Your task to perform on an android device: Clear the cart on ebay.com. Search for "razer deathadder" on ebay.com, select the first entry, add it to the cart, then select checkout. Image 0: 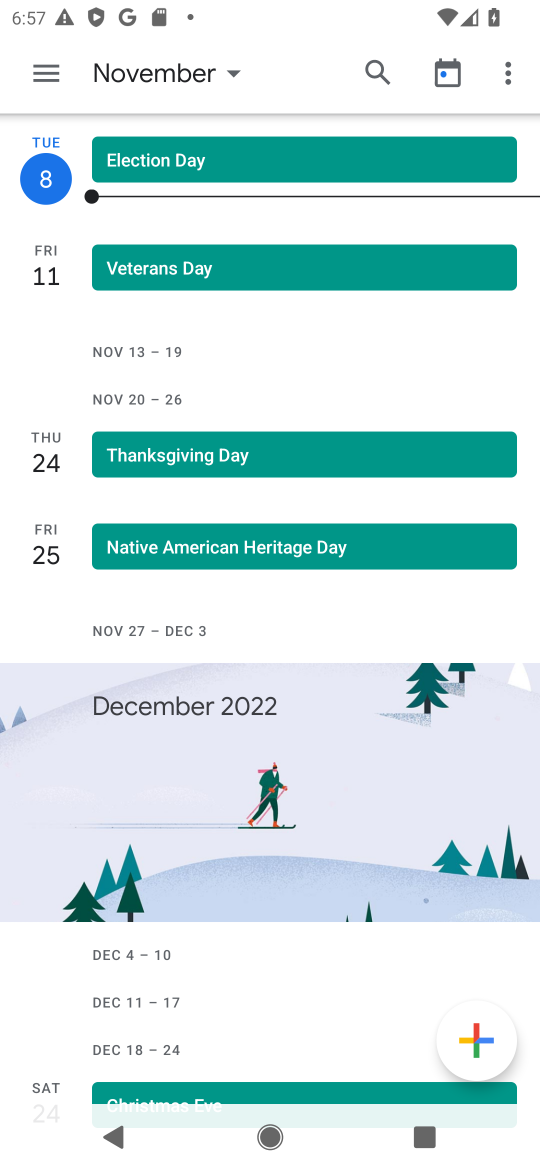
Step 0: press home button
Your task to perform on an android device: Clear the cart on ebay.com. Search for "razer deathadder" on ebay.com, select the first entry, add it to the cart, then select checkout. Image 1: 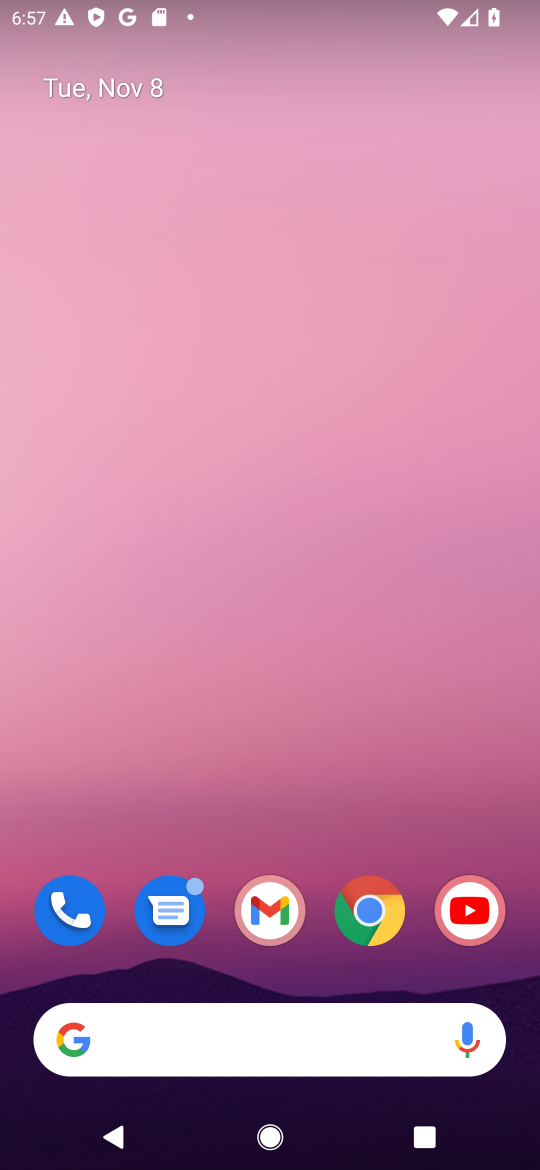
Step 1: click (365, 901)
Your task to perform on an android device: Clear the cart on ebay.com. Search for "razer deathadder" on ebay.com, select the first entry, add it to the cart, then select checkout. Image 2: 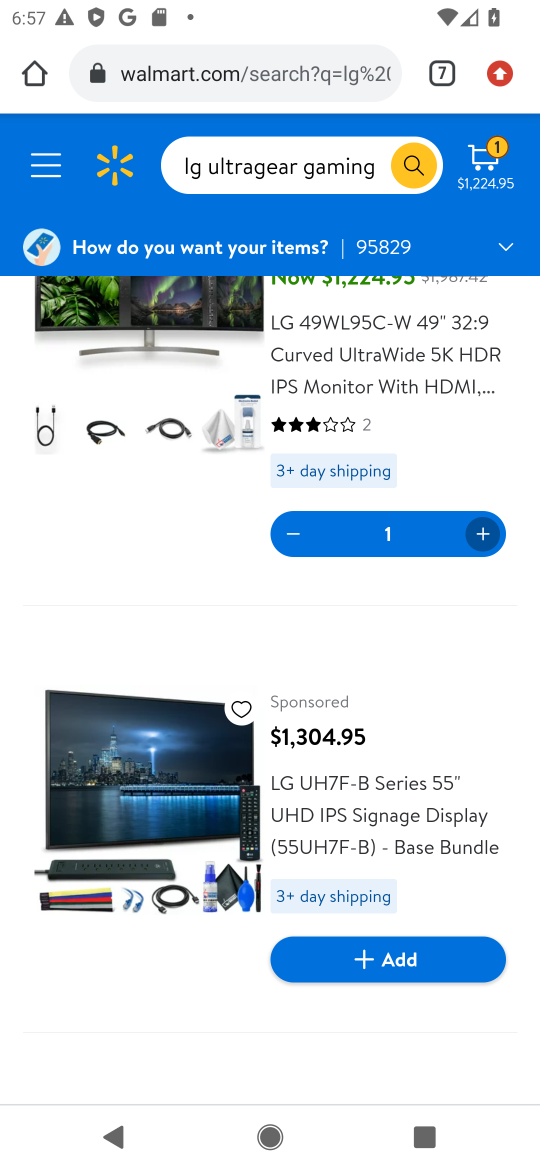
Step 2: click (441, 67)
Your task to perform on an android device: Clear the cart on ebay.com. Search for "razer deathadder" on ebay.com, select the first entry, add it to the cart, then select checkout. Image 3: 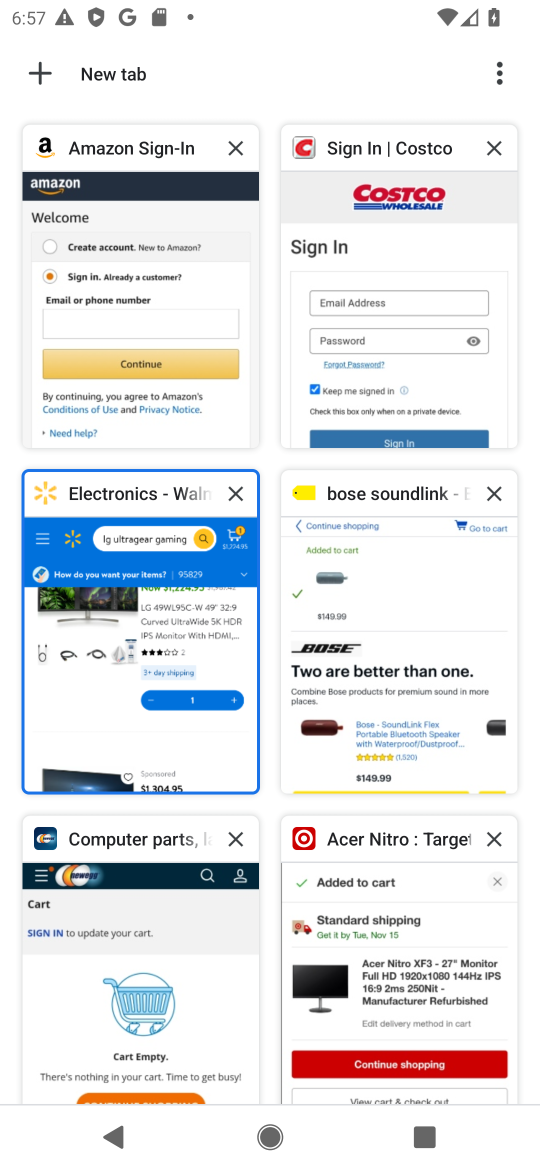
Step 3: drag from (236, 957) to (268, 456)
Your task to perform on an android device: Clear the cart on ebay.com. Search for "razer deathadder" on ebay.com, select the first entry, add it to the cart, then select checkout. Image 4: 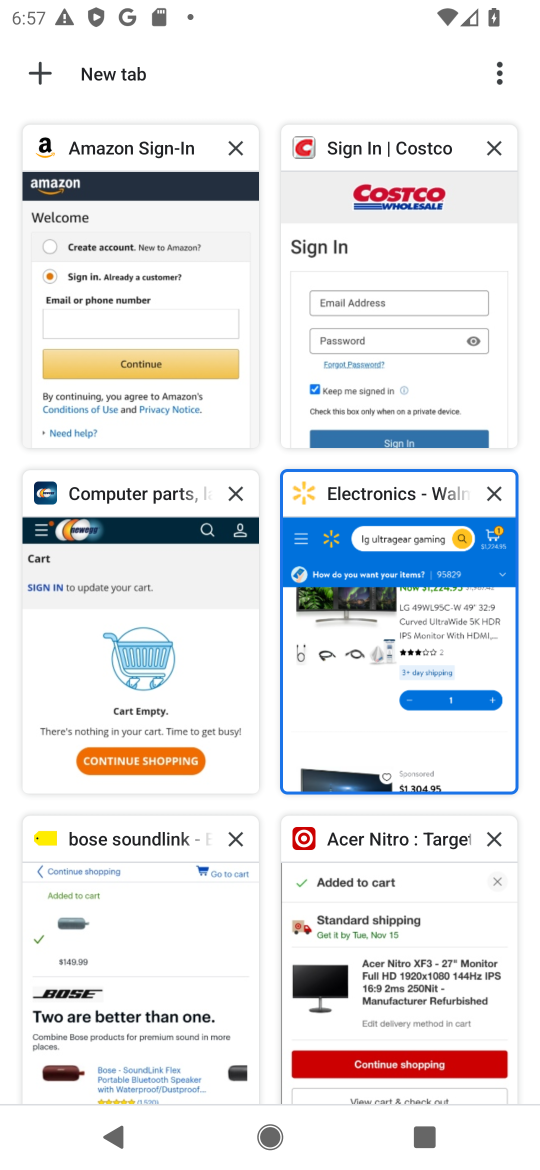
Step 4: drag from (294, 787) to (456, 57)
Your task to perform on an android device: Clear the cart on ebay.com. Search for "razer deathadder" on ebay.com, select the first entry, add it to the cart, then select checkout. Image 5: 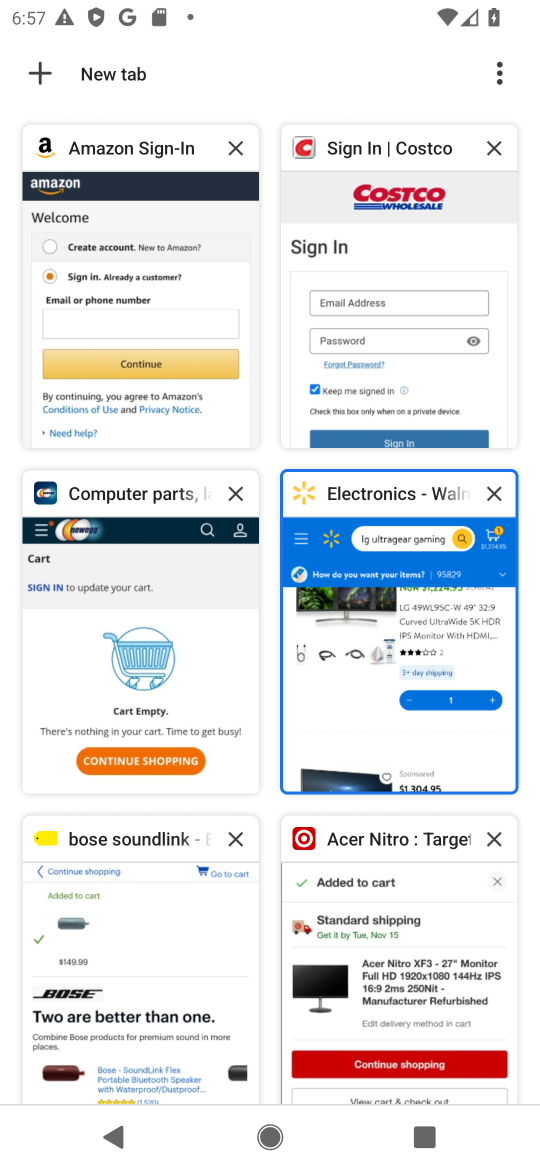
Step 5: click (37, 70)
Your task to perform on an android device: Clear the cart on ebay.com. Search for "razer deathadder" on ebay.com, select the first entry, add it to the cart, then select checkout. Image 6: 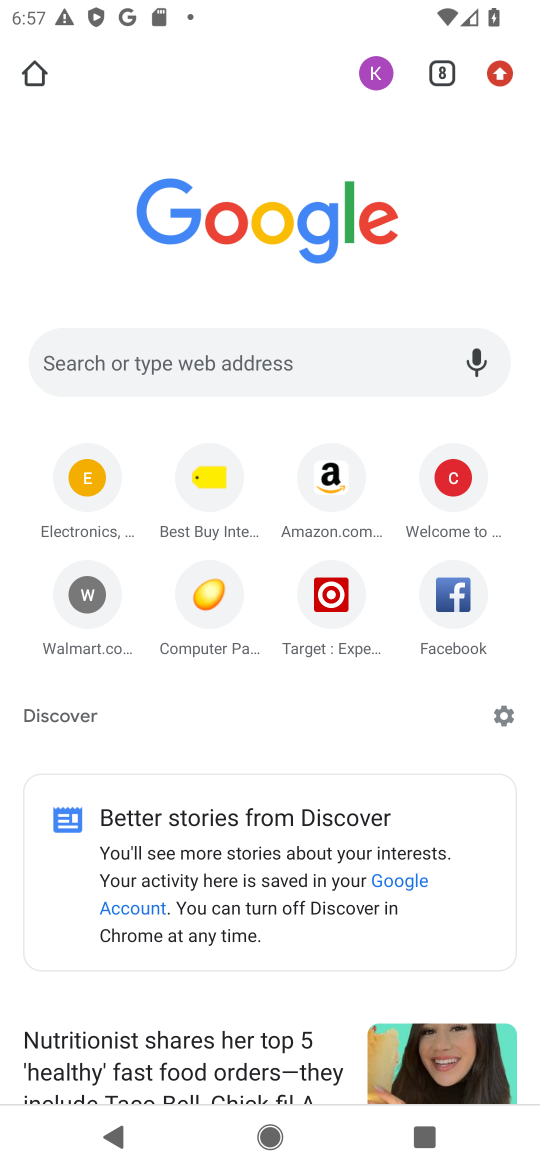
Step 6: click (188, 365)
Your task to perform on an android device: Clear the cart on ebay.com. Search for "razer deathadder" on ebay.com, select the first entry, add it to the cart, then select checkout. Image 7: 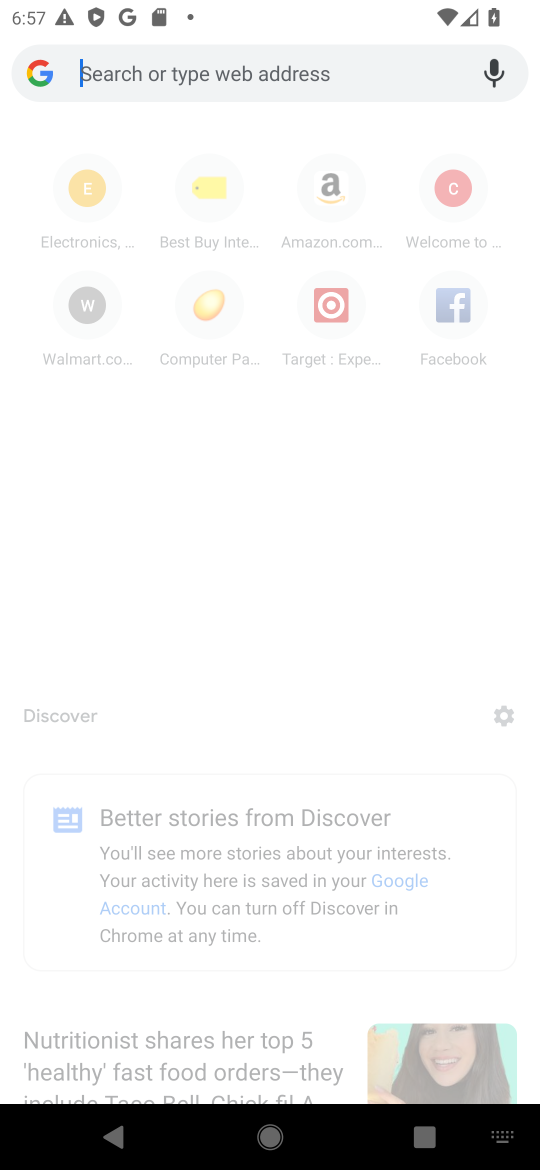
Step 7: type "ebay"
Your task to perform on an android device: Clear the cart on ebay.com. Search for "razer deathadder" on ebay.com, select the first entry, add it to the cart, then select checkout. Image 8: 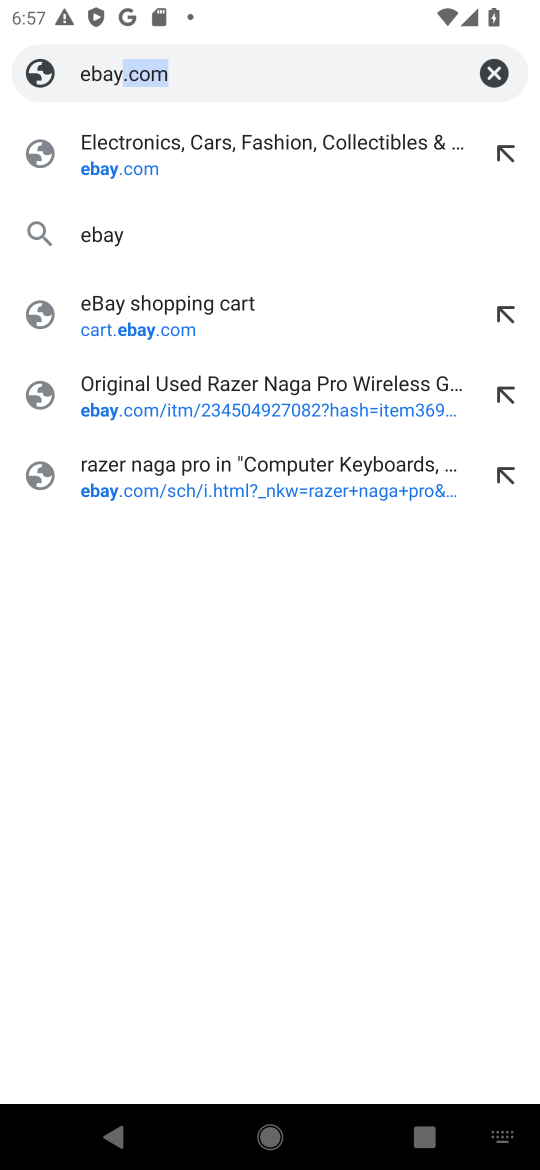
Step 8: click (206, 140)
Your task to perform on an android device: Clear the cart on ebay.com. Search for "razer deathadder" on ebay.com, select the first entry, add it to the cart, then select checkout. Image 9: 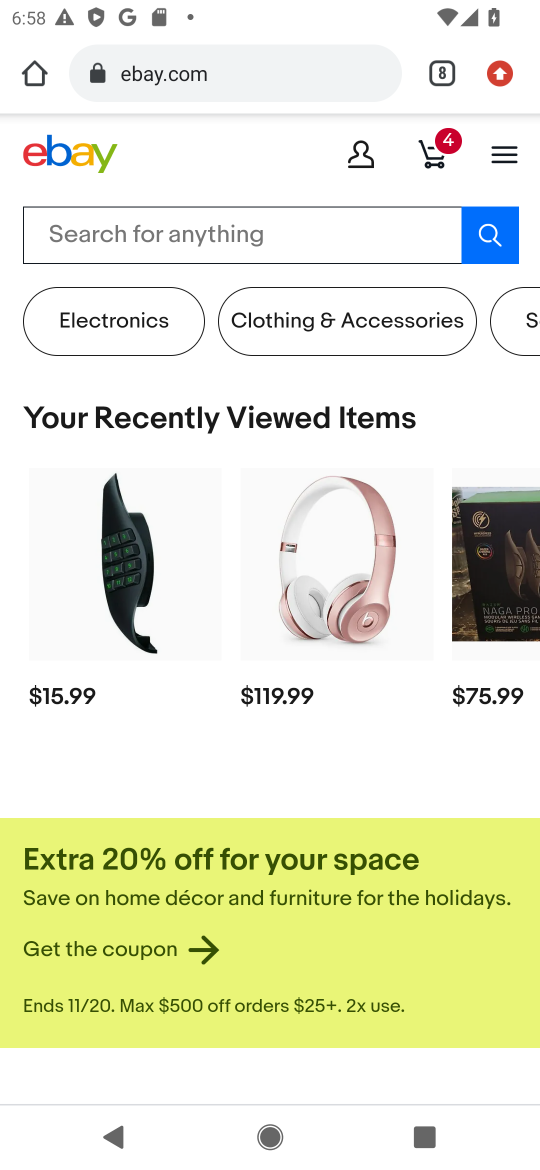
Step 9: click (191, 243)
Your task to perform on an android device: Clear the cart on ebay.com. Search for "razer deathadder" on ebay.com, select the first entry, add it to the cart, then select checkout. Image 10: 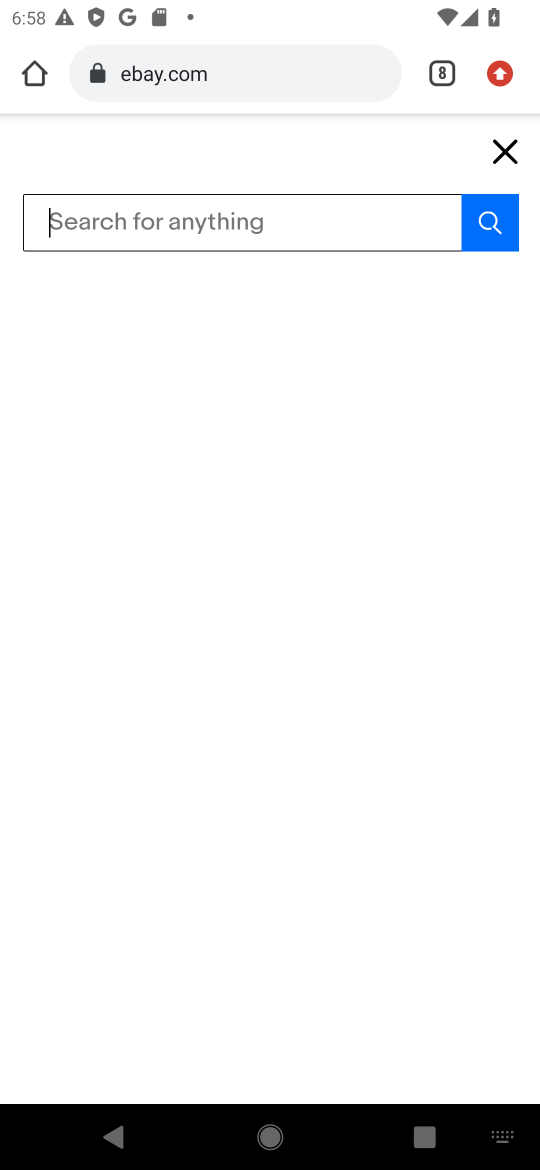
Step 10: type "razer deathadder"
Your task to perform on an android device: Clear the cart on ebay.com. Search for "razer deathadder" on ebay.com, select the first entry, add it to the cart, then select checkout. Image 11: 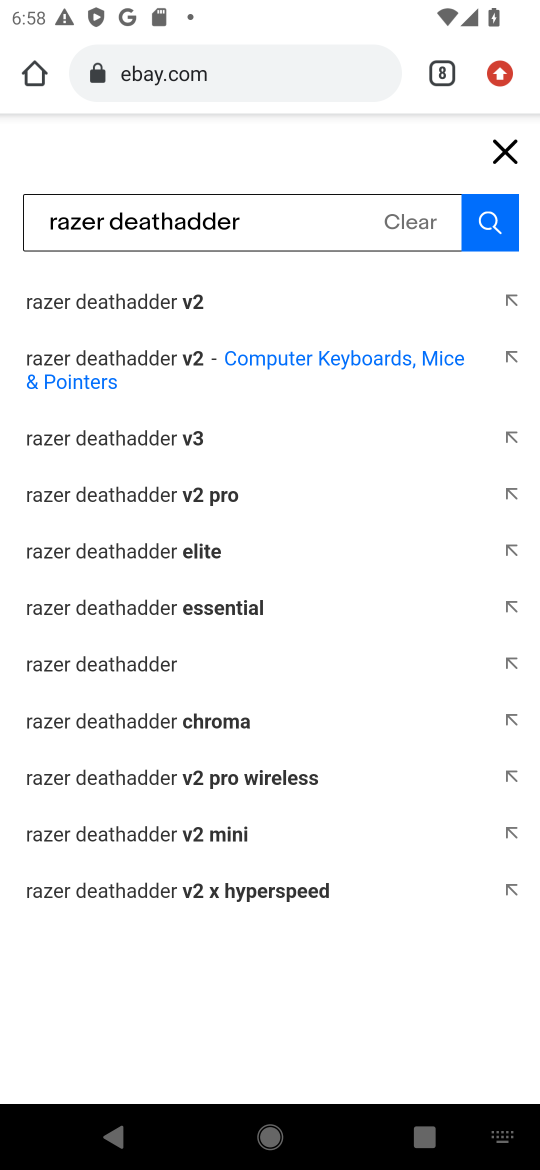
Step 11: click (171, 358)
Your task to perform on an android device: Clear the cart on ebay.com. Search for "razer deathadder" on ebay.com, select the first entry, add it to the cart, then select checkout. Image 12: 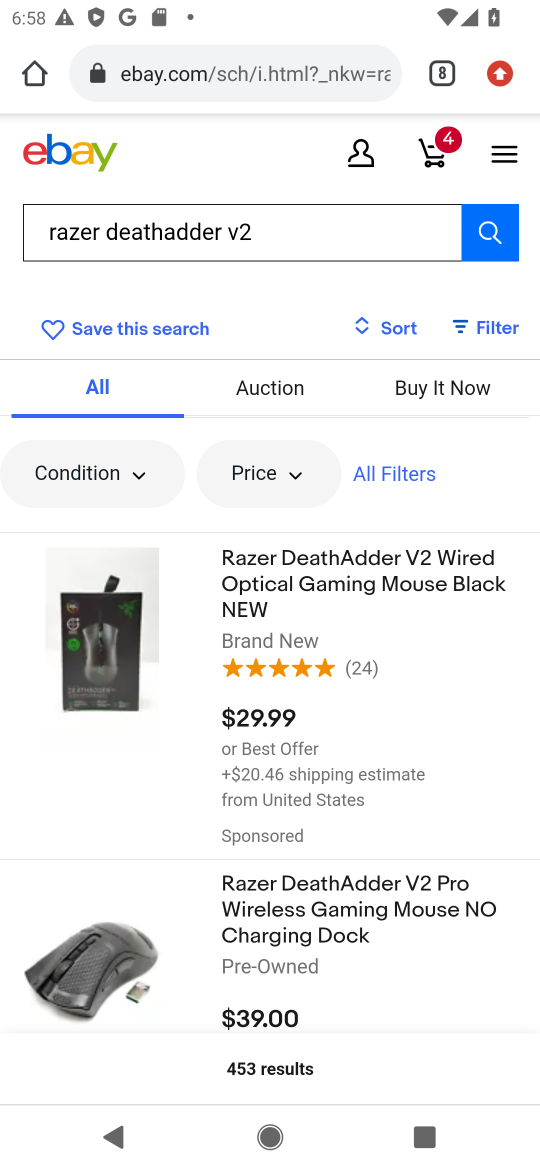
Step 12: click (364, 580)
Your task to perform on an android device: Clear the cart on ebay.com. Search for "razer deathadder" on ebay.com, select the first entry, add it to the cart, then select checkout. Image 13: 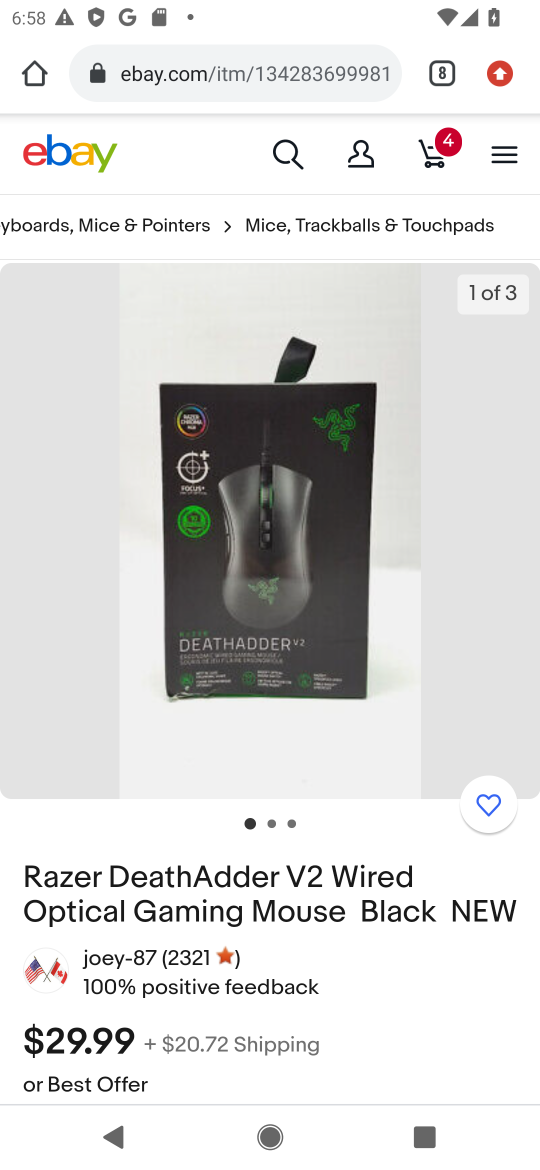
Step 13: drag from (331, 937) to (477, 279)
Your task to perform on an android device: Clear the cart on ebay.com. Search for "razer deathadder" on ebay.com, select the first entry, add it to the cart, then select checkout. Image 14: 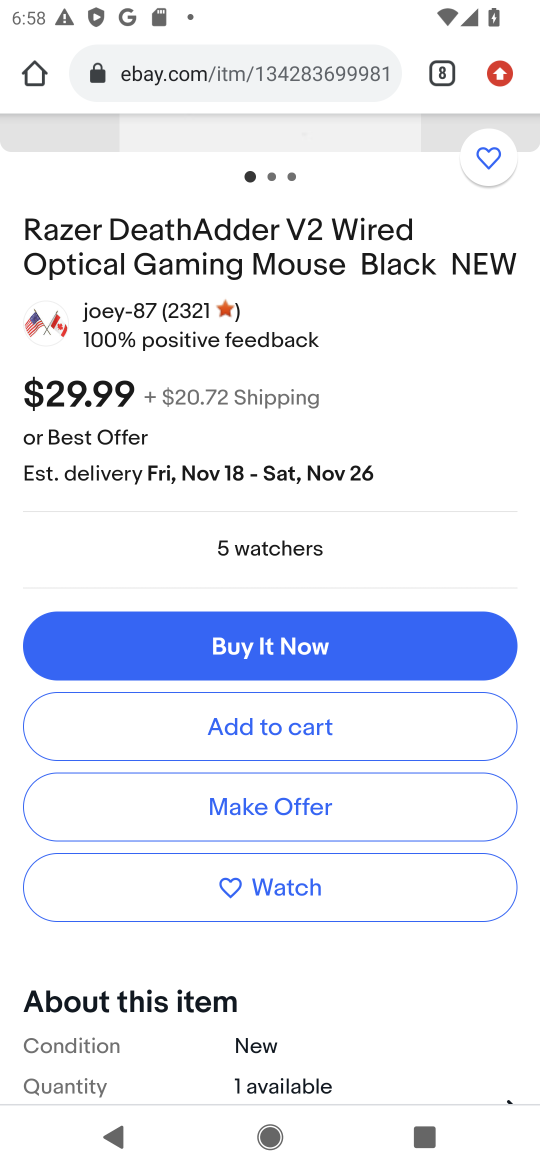
Step 14: click (270, 724)
Your task to perform on an android device: Clear the cart on ebay.com. Search for "razer deathadder" on ebay.com, select the first entry, add it to the cart, then select checkout. Image 15: 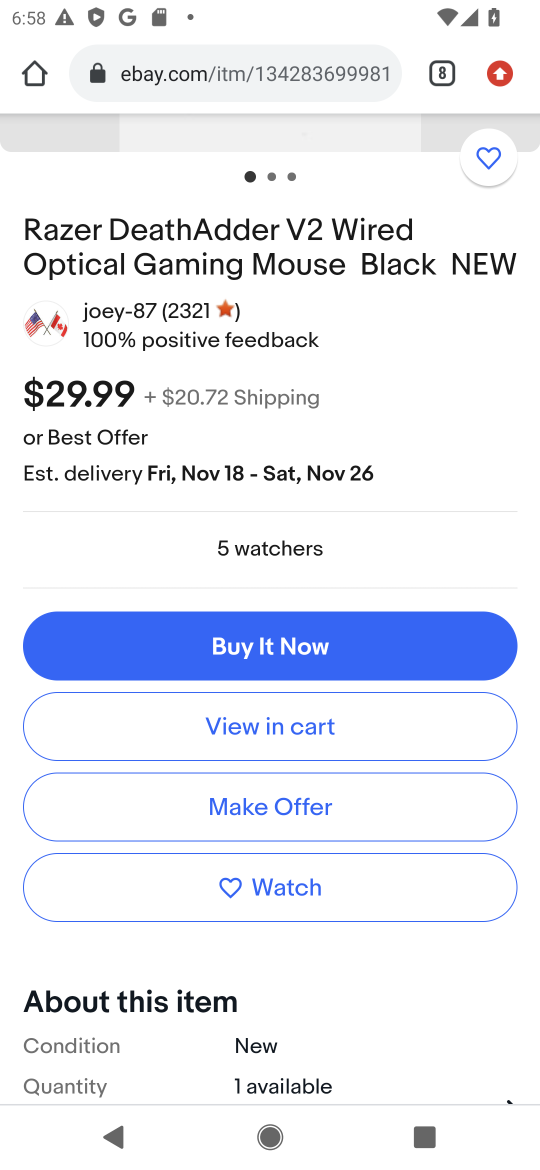
Step 15: task complete